Your task to perform on an android device: open app "Venmo" (install if not already installed), go to login, and select forgot password Image 0: 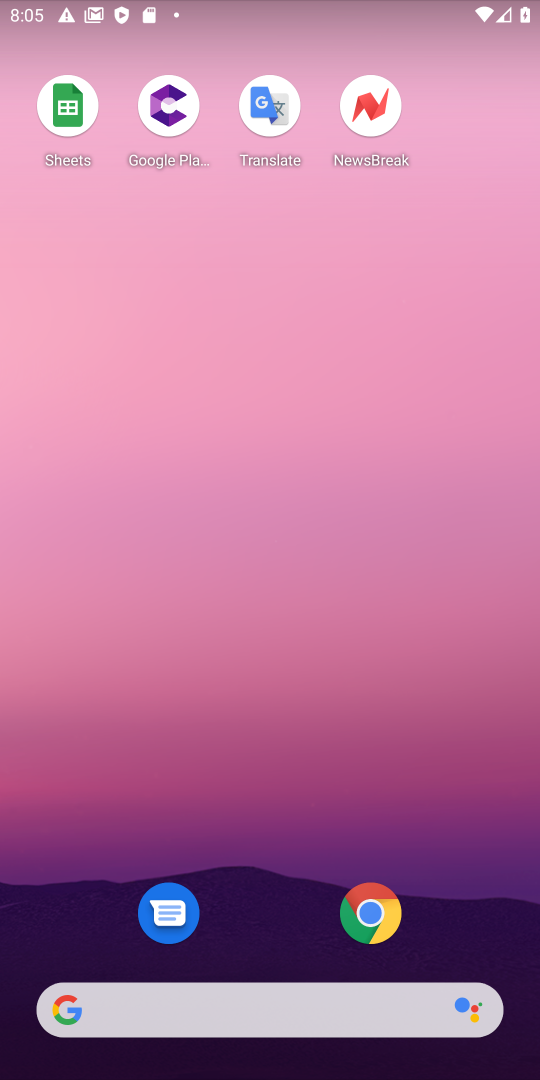
Step 0: click (221, 269)
Your task to perform on an android device: open app "Venmo" (install if not already installed), go to login, and select forgot password Image 1: 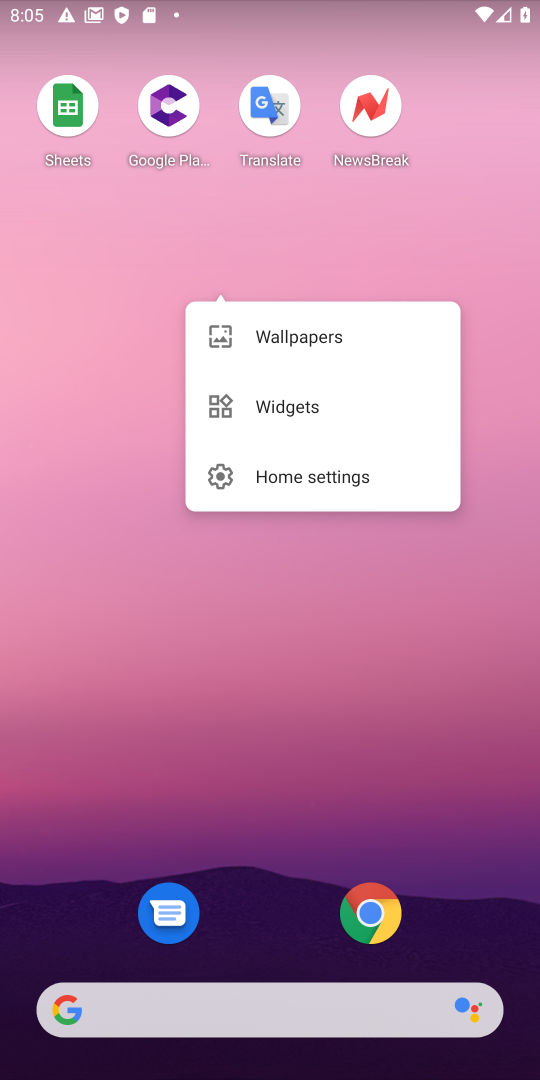
Step 1: click (308, 669)
Your task to perform on an android device: open app "Venmo" (install if not already installed), go to login, and select forgot password Image 2: 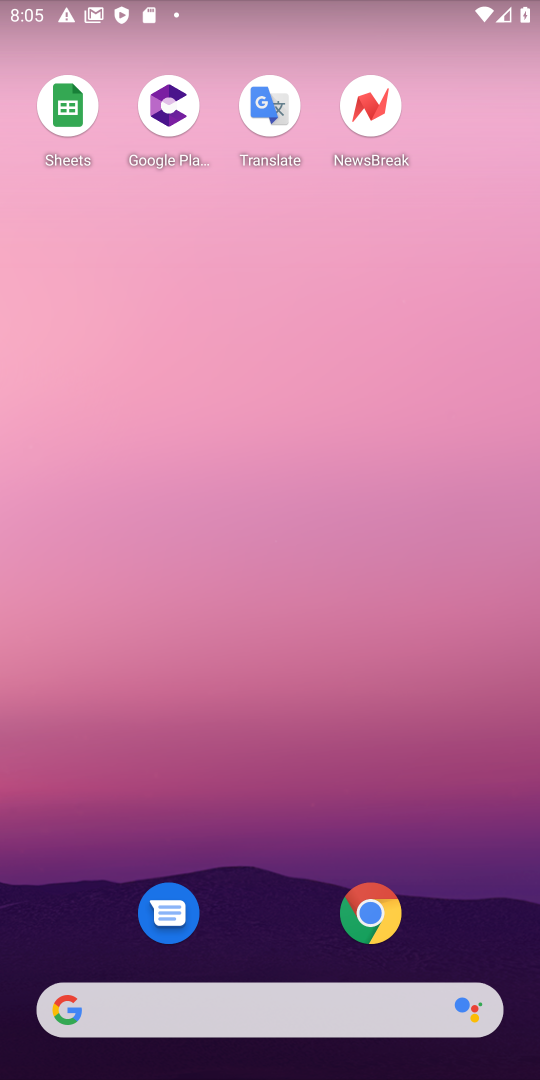
Step 2: drag from (286, 895) to (269, 295)
Your task to perform on an android device: open app "Venmo" (install if not already installed), go to login, and select forgot password Image 3: 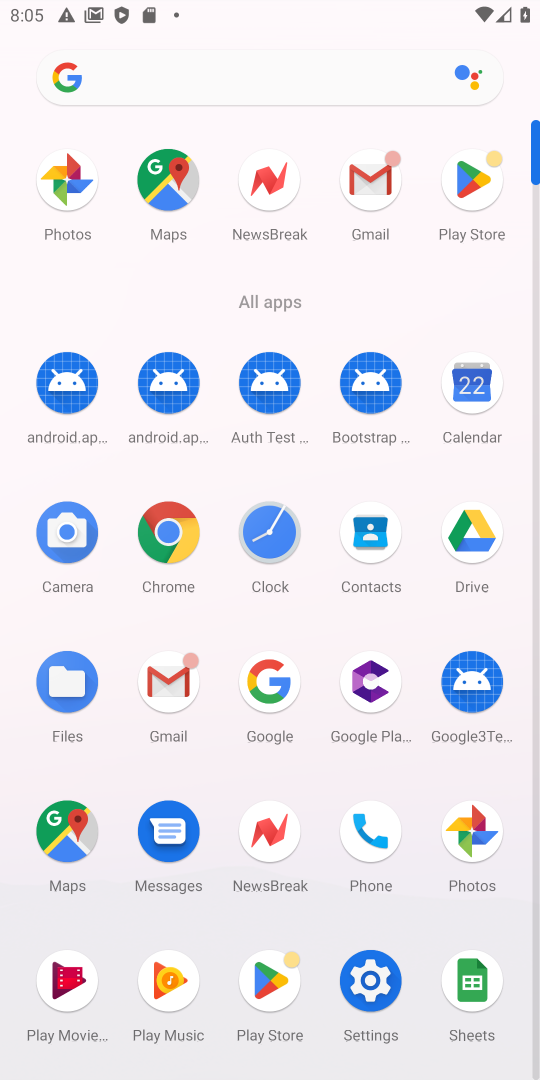
Step 3: click (469, 160)
Your task to perform on an android device: open app "Venmo" (install if not already installed), go to login, and select forgot password Image 4: 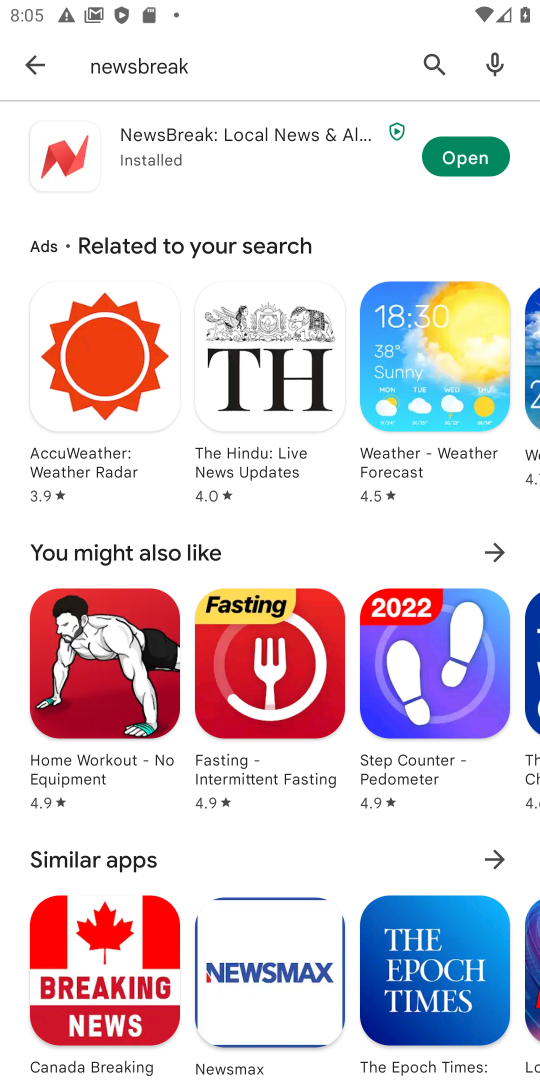
Step 4: click (433, 67)
Your task to perform on an android device: open app "Venmo" (install if not already installed), go to login, and select forgot password Image 5: 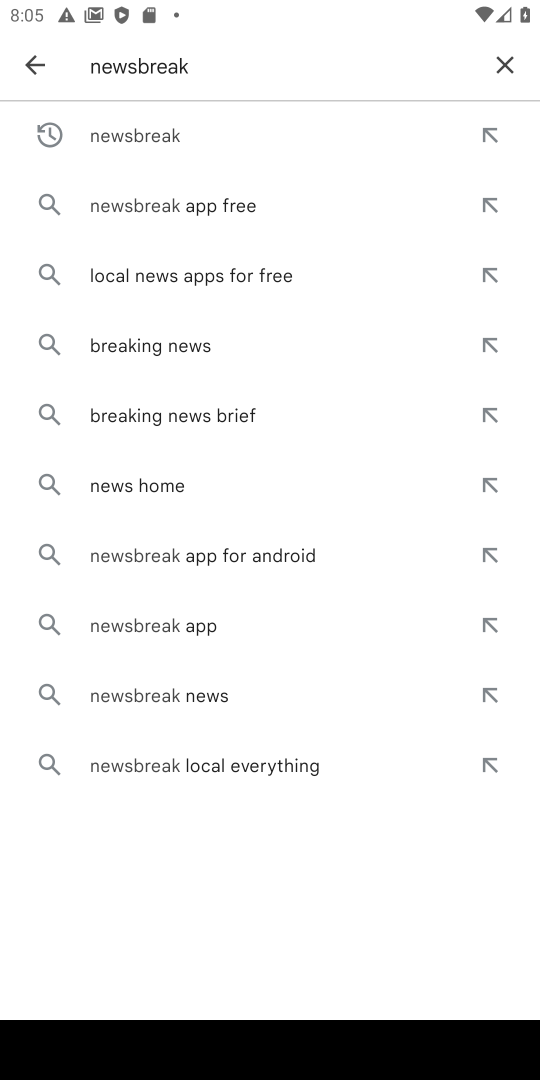
Step 5: click (514, 70)
Your task to perform on an android device: open app "Venmo" (install if not already installed), go to login, and select forgot password Image 6: 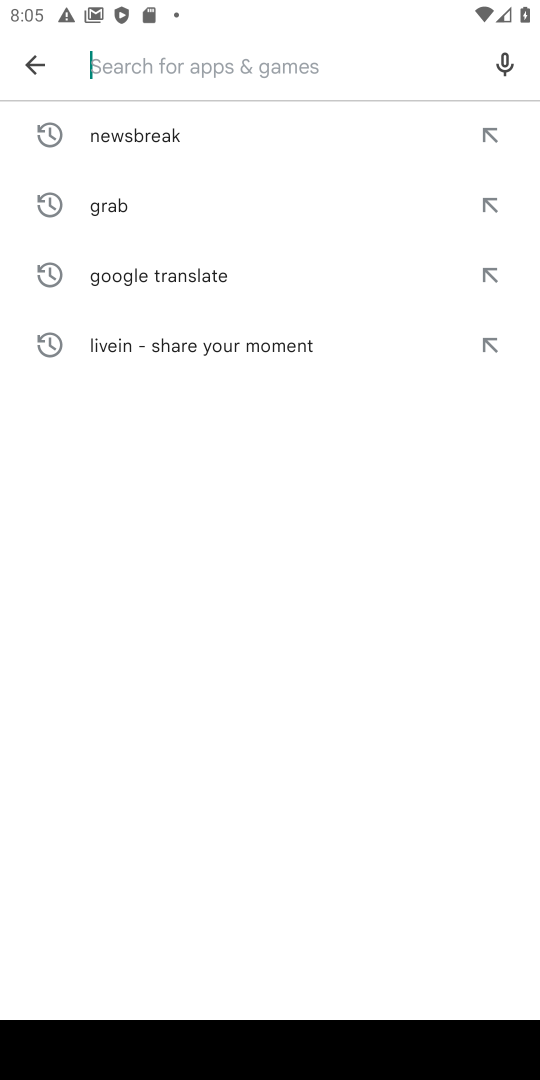
Step 6: type "venmo"
Your task to perform on an android device: open app "Venmo" (install if not already installed), go to login, and select forgot password Image 7: 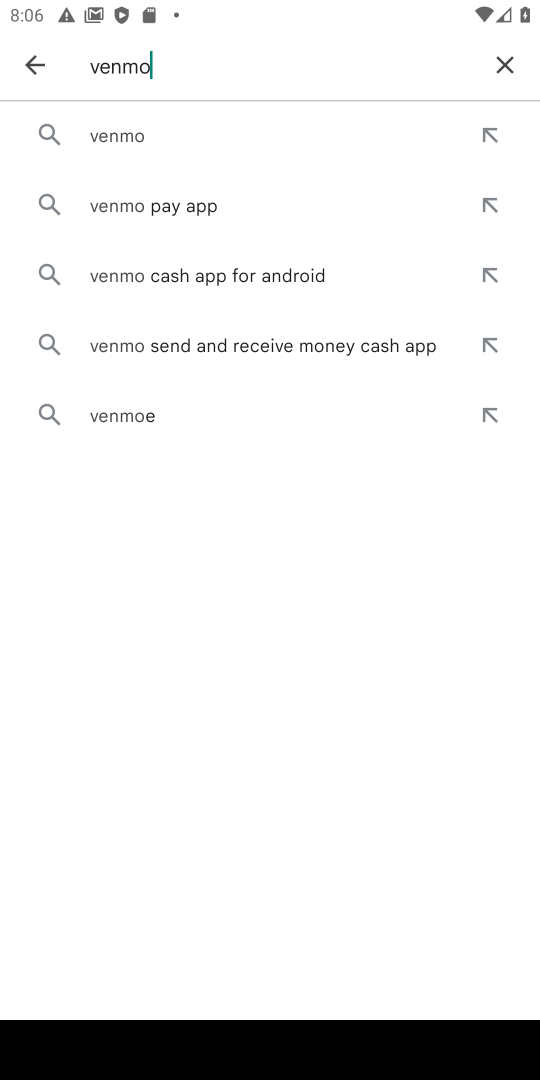
Step 7: click (171, 134)
Your task to perform on an android device: open app "Venmo" (install if not already installed), go to login, and select forgot password Image 8: 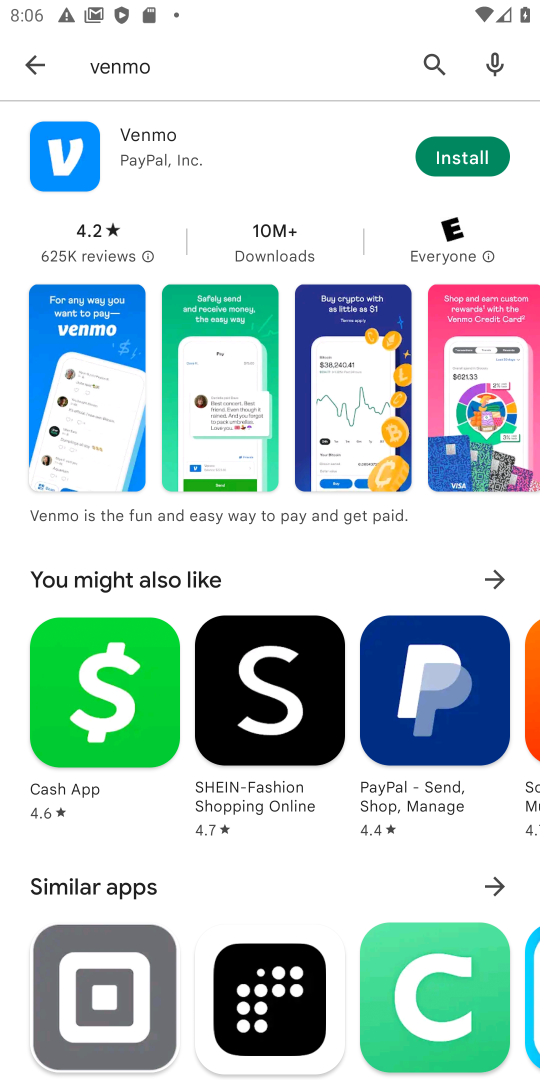
Step 8: click (454, 150)
Your task to perform on an android device: open app "Venmo" (install if not already installed), go to login, and select forgot password Image 9: 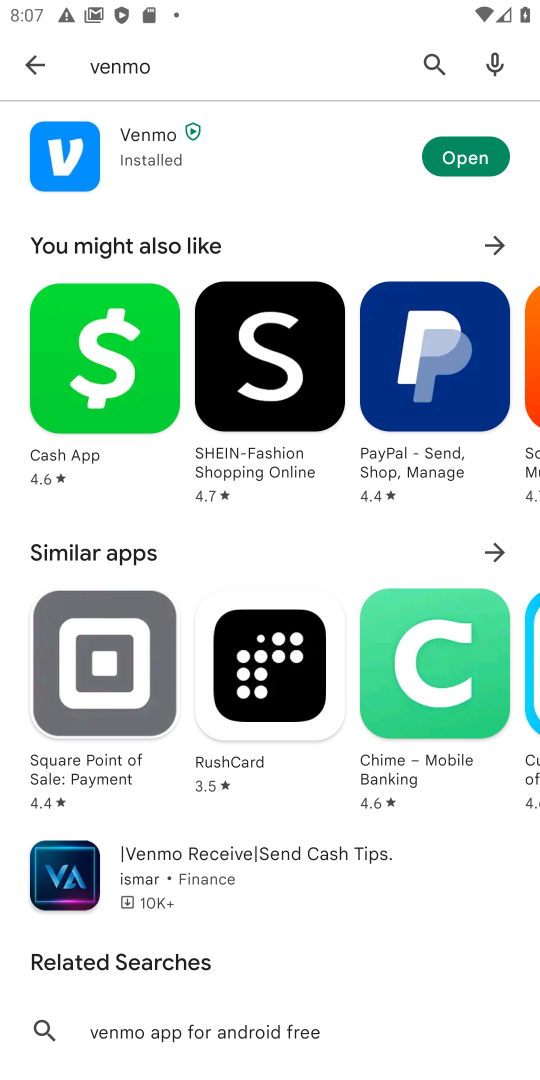
Step 9: click (445, 149)
Your task to perform on an android device: open app "Venmo" (install if not already installed), go to login, and select forgot password Image 10: 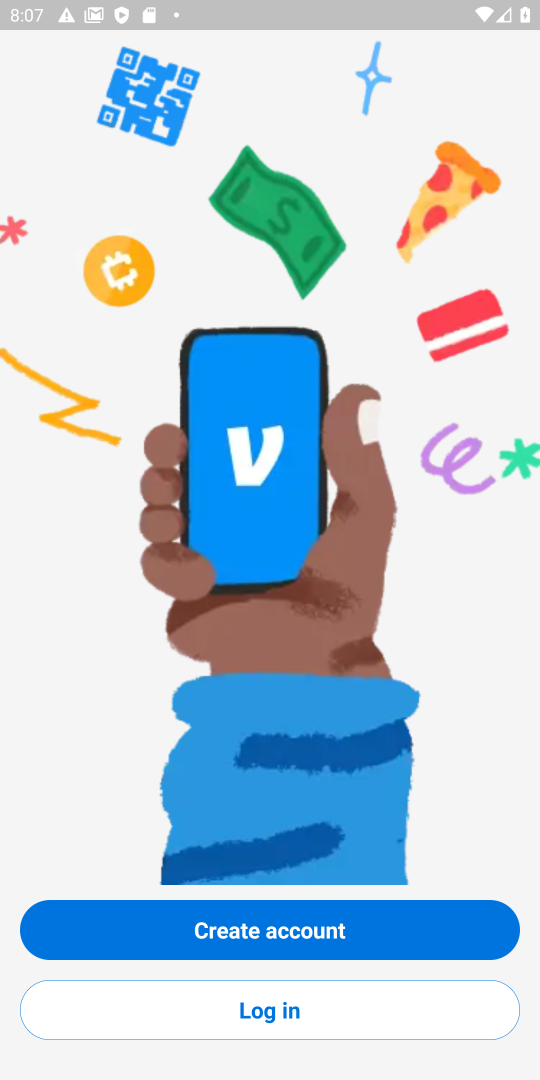
Step 10: click (293, 1004)
Your task to perform on an android device: open app "Venmo" (install if not already installed), go to login, and select forgot password Image 11: 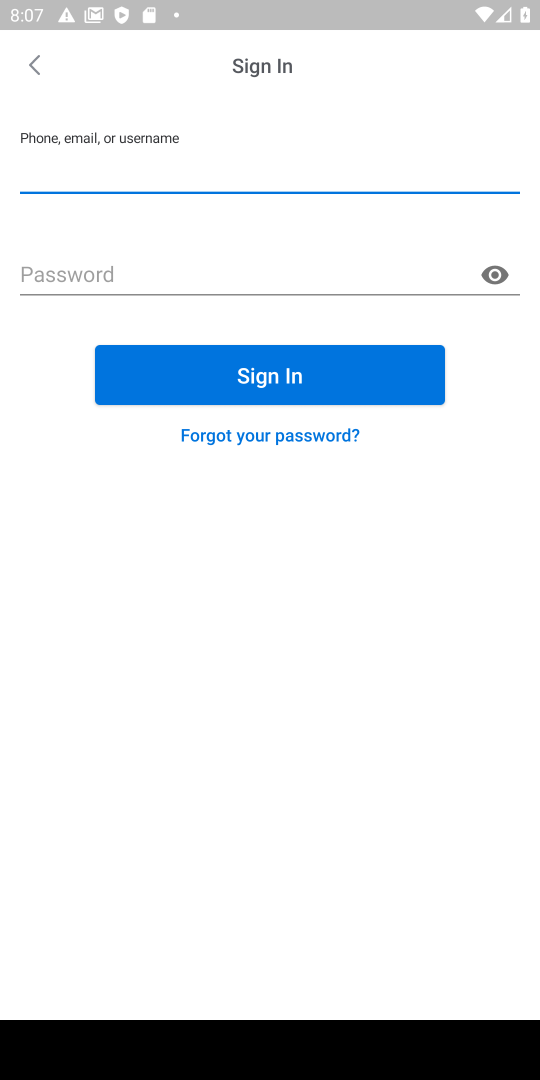
Step 11: click (240, 436)
Your task to perform on an android device: open app "Venmo" (install if not already installed), go to login, and select forgot password Image 12: 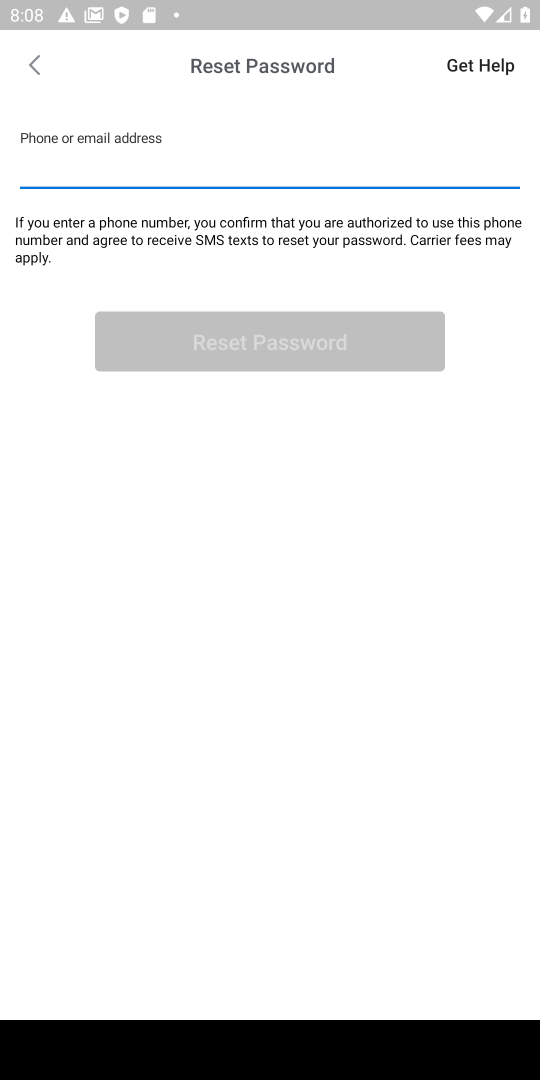
Step 12: task complete